Your task to perform on an android device: clear all cookies in the chrome app Image 0: 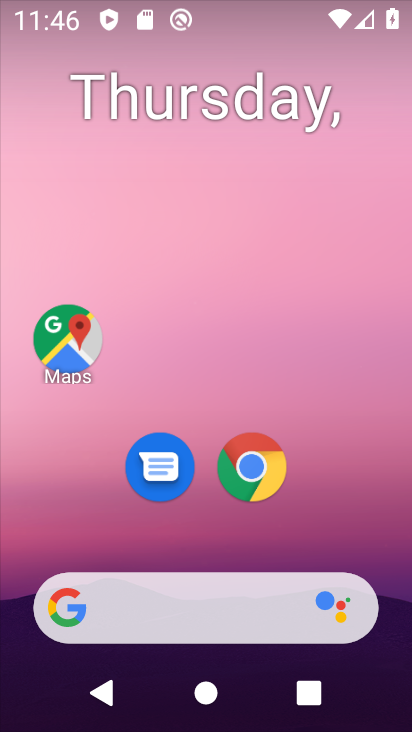
Step 0: click (253, 469)
Your task to perform on an android device: clear all cookies in the chrome app Image 1: 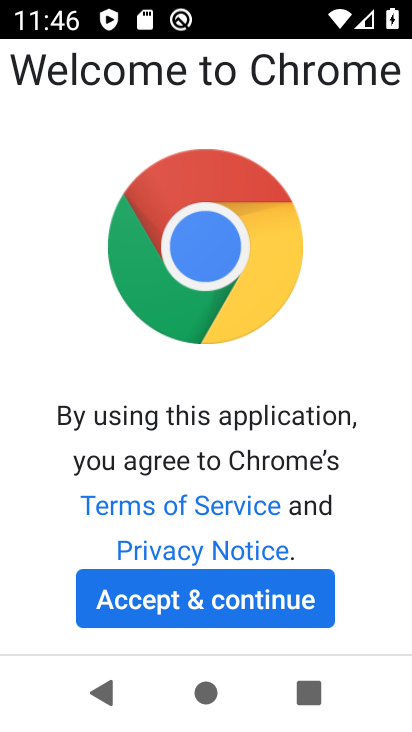
Step 1: click (179, 599)
Your task to perform on an android device: clear all cookies in the chrome app Image 2: 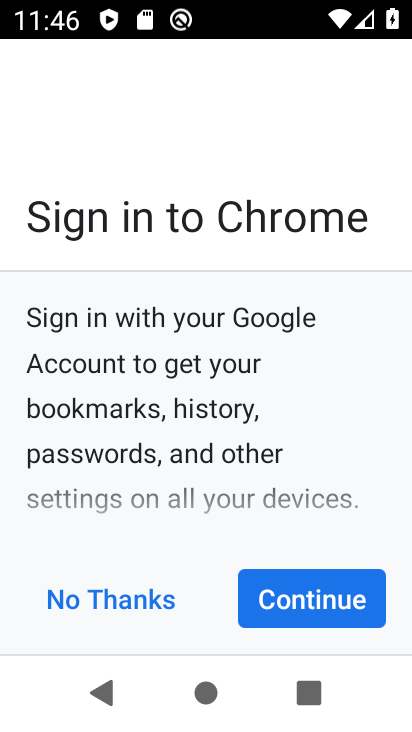
Step 2: click (310, 599)
Your task to perform on an android device: clear all cookies in the chrome app Image 3: 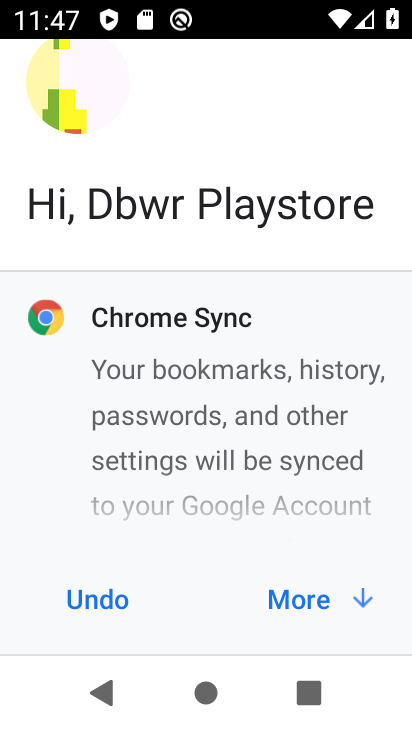
Step 3: click (287, 597)
Your task to perform on an android device: clear all cookies in the chrome app Image 4: 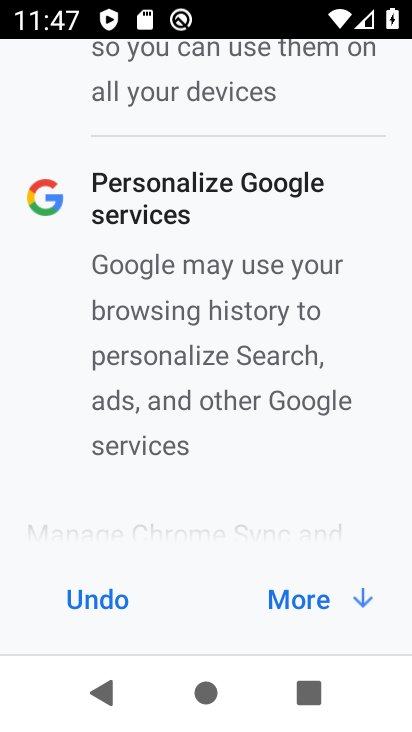
Step 4: click (287, 597)
Your task to perform on an android device: clear all cookies in the chrome app Image 5: 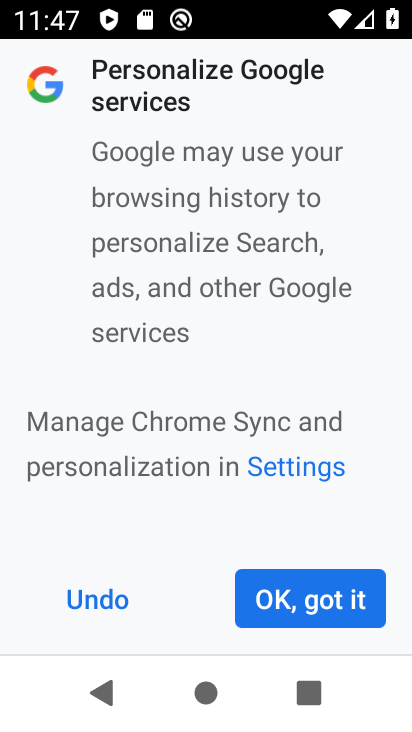
Step 5: click (287, 597)
Your task to perform on an android device: clear all cookies in the chrome app Image 6: 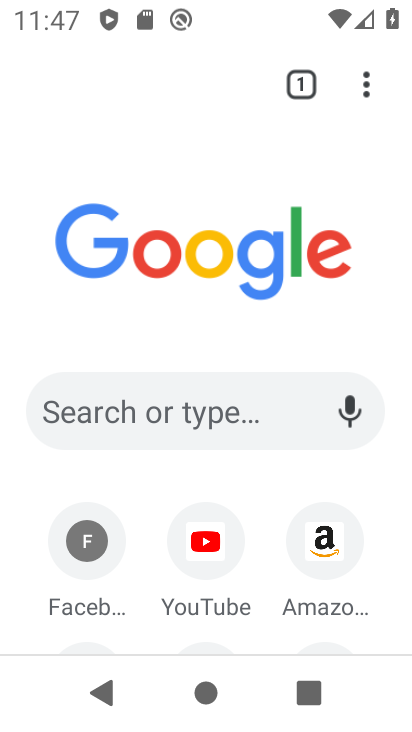
Step 6: click (362, 88)
Your task to perform on an android device: clear all cookies in the chrome app Image 7: 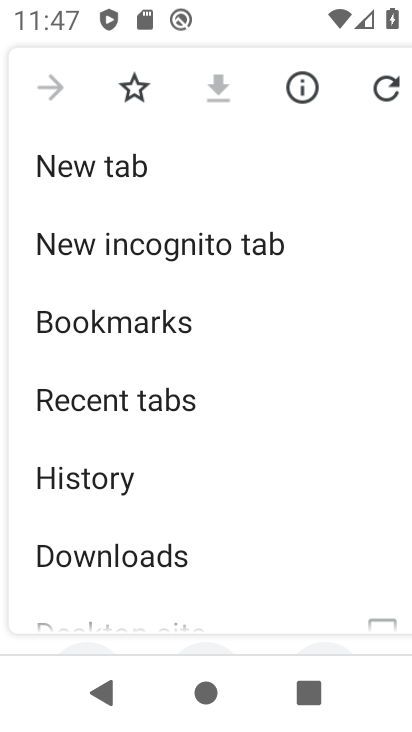
Step 7: click (94, 465)
Your task to perform on an android device: clear all cookies in the chrome app Image 8: 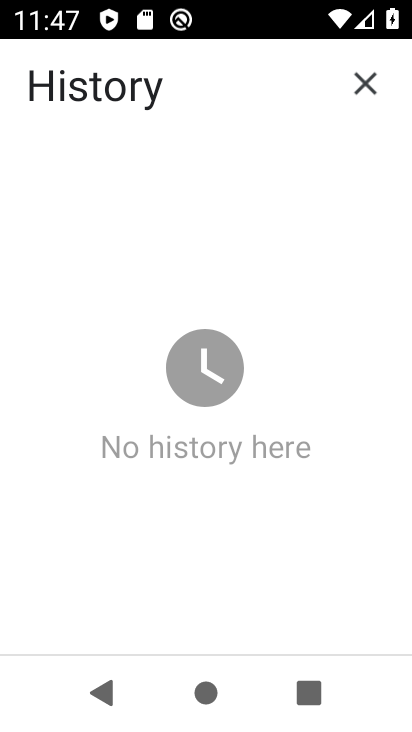
Step 8: task complete